Your task to perform on an android device: snooze an email in the gmail app Image 0: 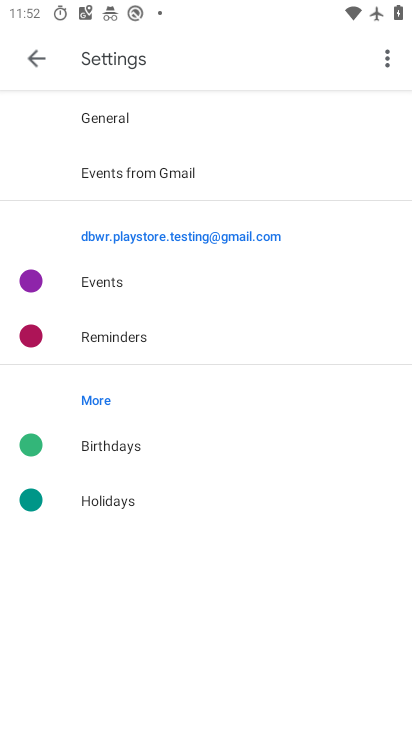
Step 0: press back button
Your task to perform on an android device: snooze an email in the gmail app Image 1: 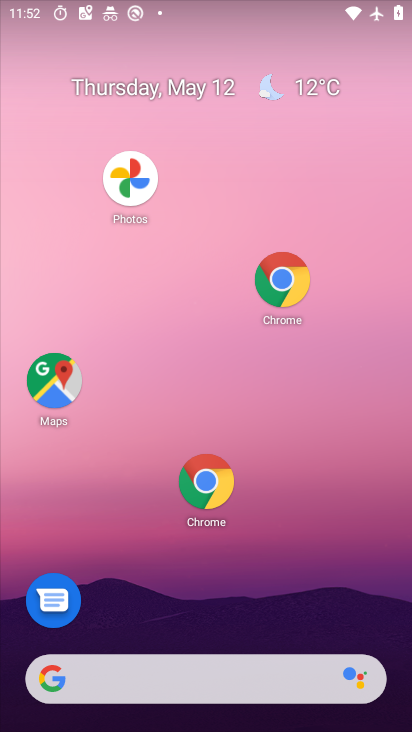
Step 1: drag from (380, 623) to (209, 141)
Your task to perform on an android device: snooze an email in the gmail app Image 2: 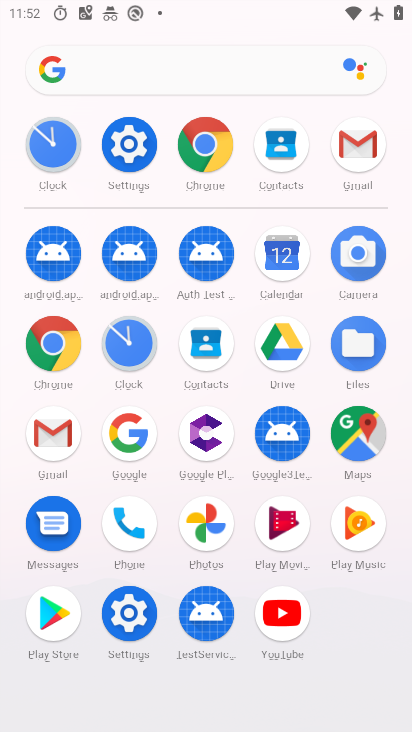
Step 2: click (44, 438)
Your task to perform on an android device: snooze an email in the gmail app Image 3: 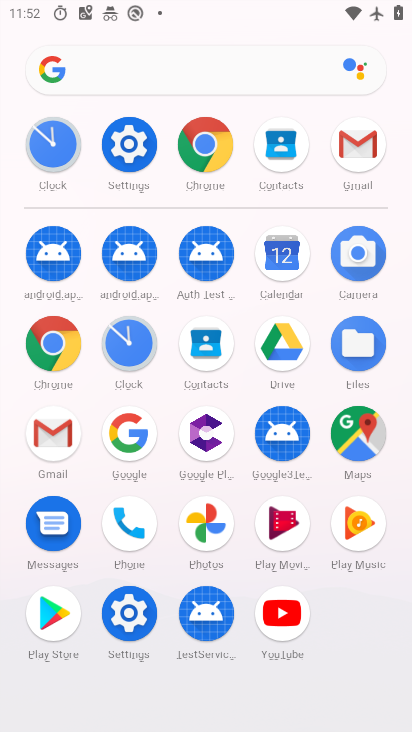
Step 3: click (44, 433)
Your task to perform on an android device: snooze an email in the gmail app Image 4: 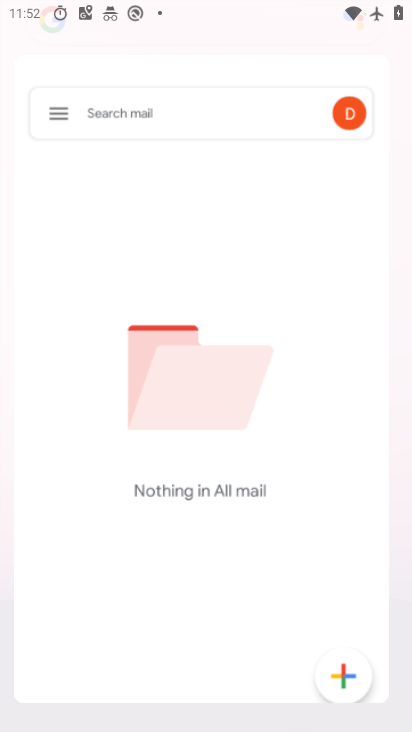
Step 4: click (45, 432)
Your task to perform on an android device: snooze an email in the gmail app Image 5: 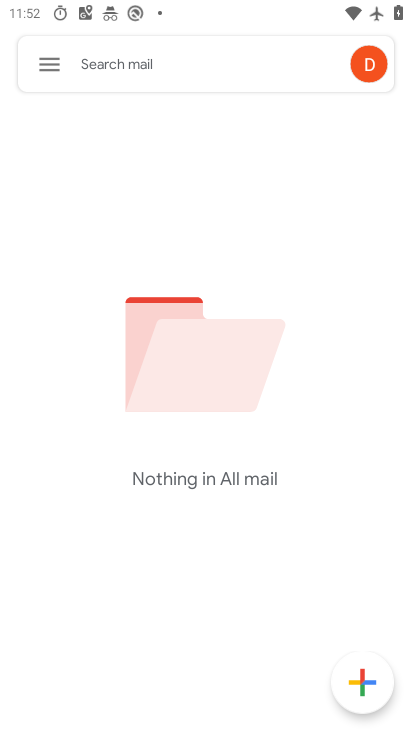
Step 5: click (49, 62)
Your task to perform on an android device: snooze an email in the gmail app Image 6: 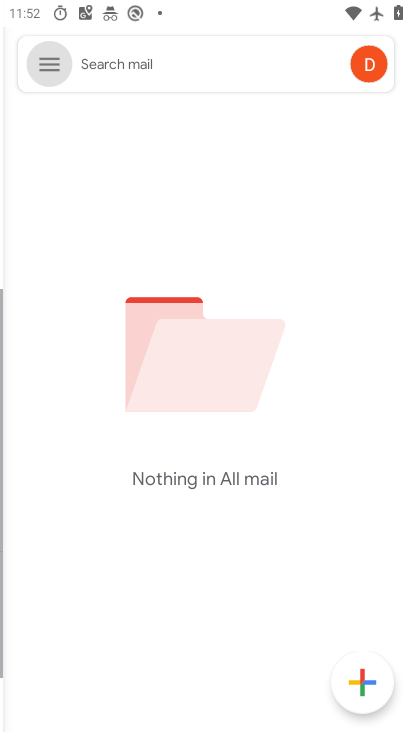
Step 6: click (49, 62)
Your task to perform on an android device: snooze an email in the gmail app Image 7: 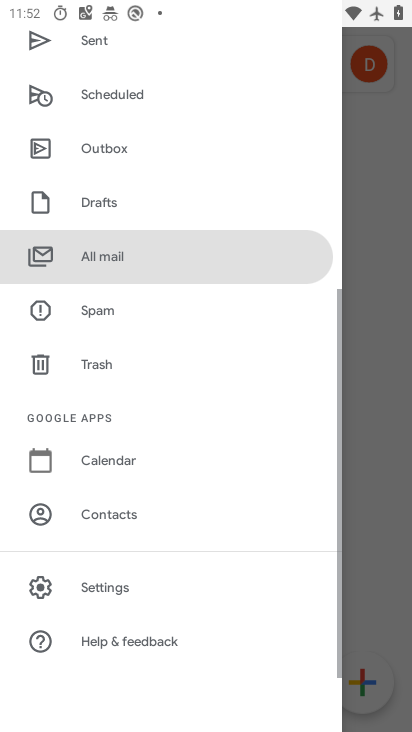
Step 7: click (50, 60)
Your task to perform on an android device: snooze an email in the gmail app Image 8: 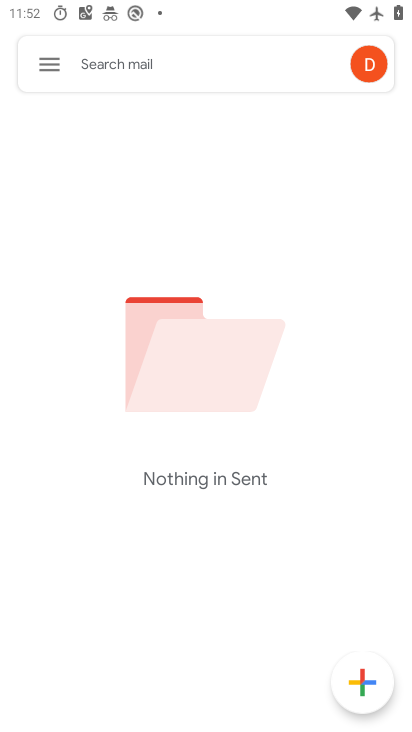
Step 8: click (47, 68)
Your task to perform on an android device: snooze an email in the gmail app Image 9: 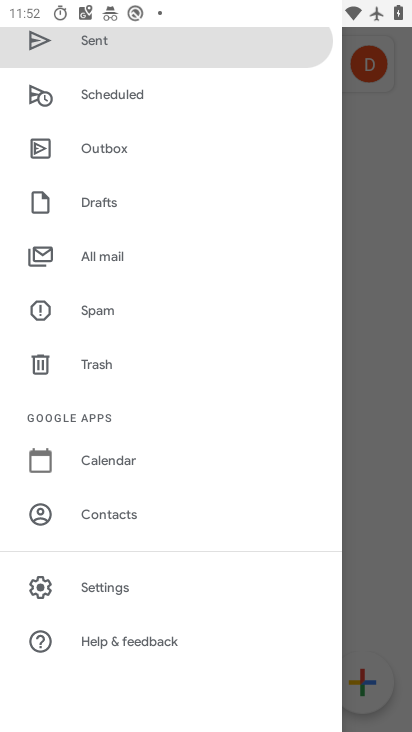
Step 9: drag from (81, 132) to (158, 369)
Your task to perform on an android device: snooze an email in the gmail app Image 10: 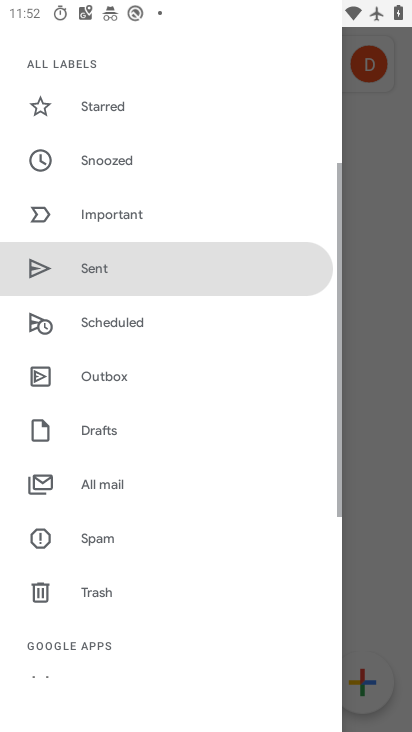
Step 10: drag from (122, 160) to (165, 443)
Your task to perform on an android device: snooze an email in the gmail app Image 11: 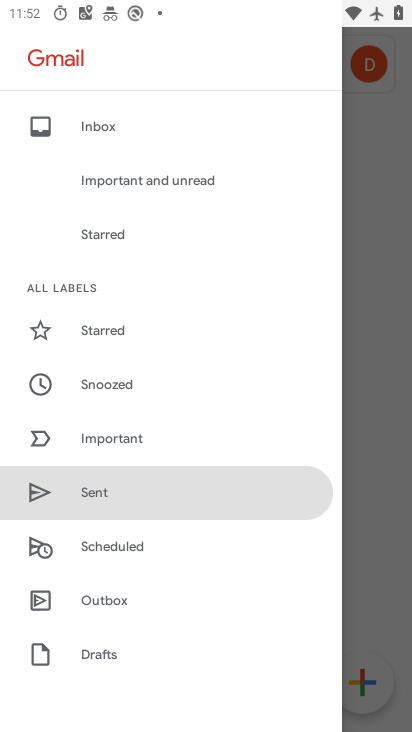
Step 11: click (104, 386)
Your task to perform on an android device: snooze an email in the gmail app Image 12: 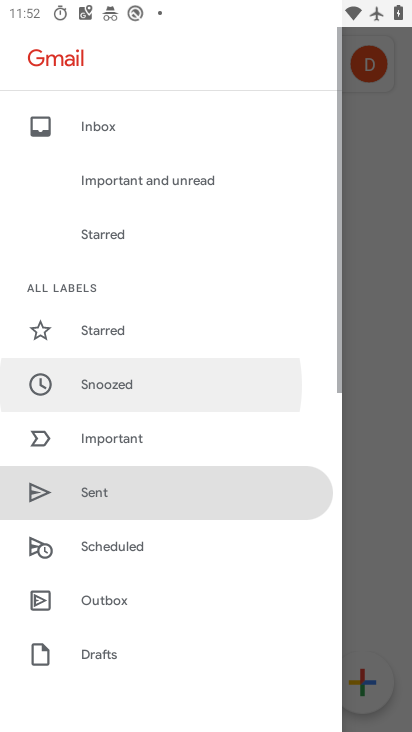
Step 12: click (105, 393)
Your task to perform on an android device: snooze an email in the gmail app Image 13: 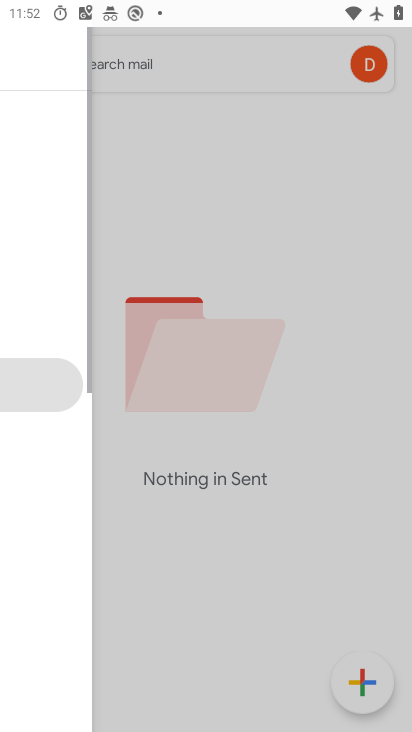
Step 13: click (104, 394)
Your task to perform on an android device: snooze an email in the gmail app Image 14: 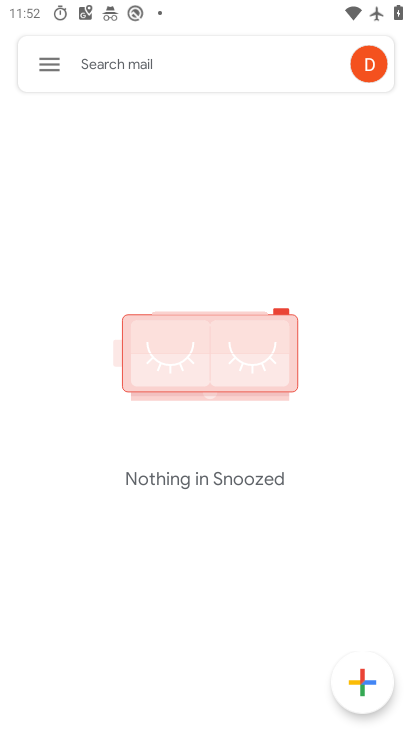
Step 14: task complete